Your task to perform on an android device: set the timer Image 0: 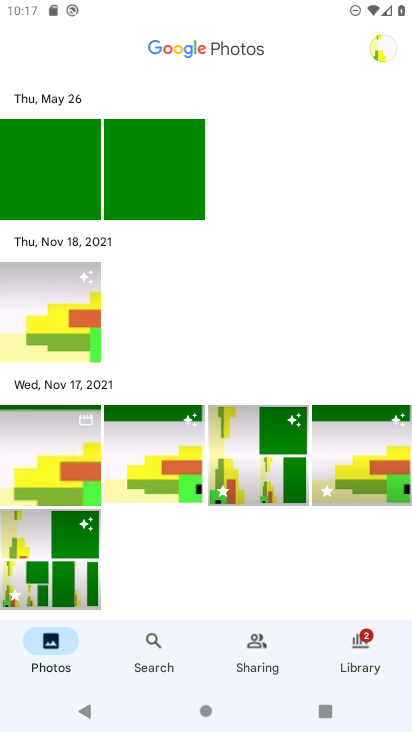
Step 0: press home button
Your task to perform on an android device: set the timer Image 1: 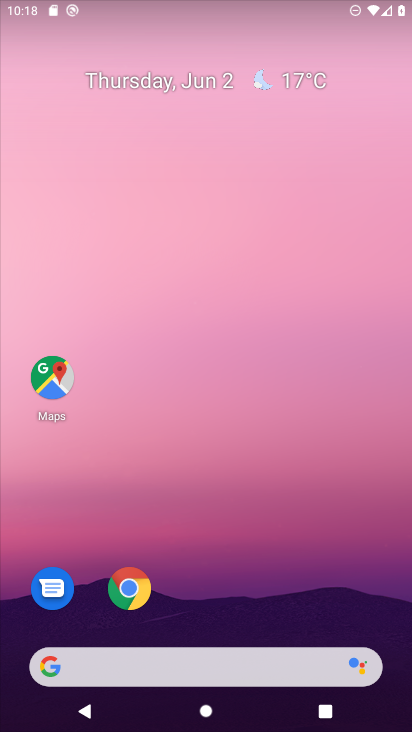
Step 1: drag from (214, 614) to (261, 80)
Your task to perform on an android device: set the timer Image 2: 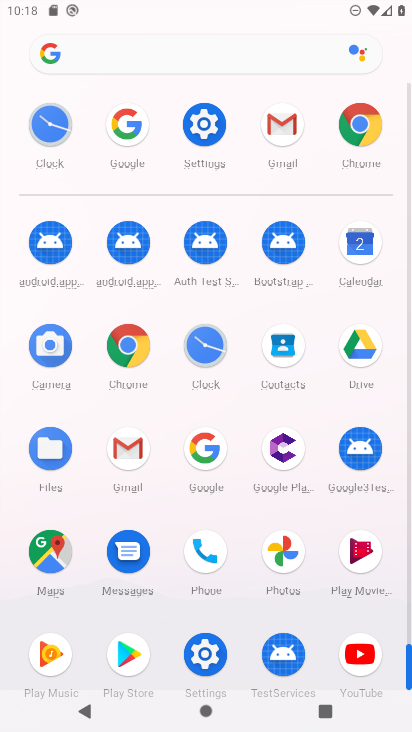
Step 2: click (216, 357)
Your task to perform on an android device: set the timer Image 3: 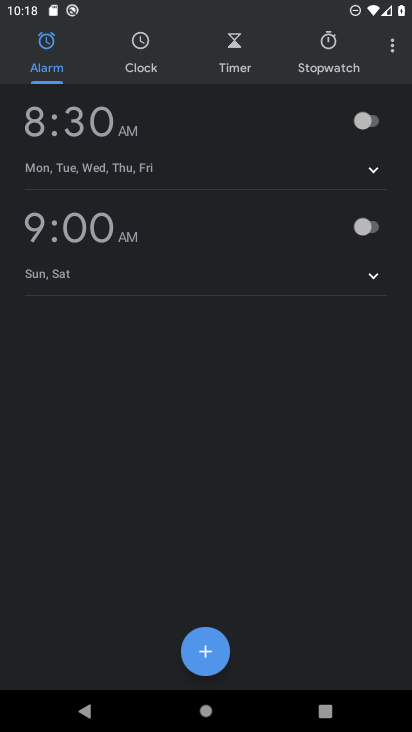
Step 3: click (254, 52)
Your task to perform on an android device: set the timer Image 4: 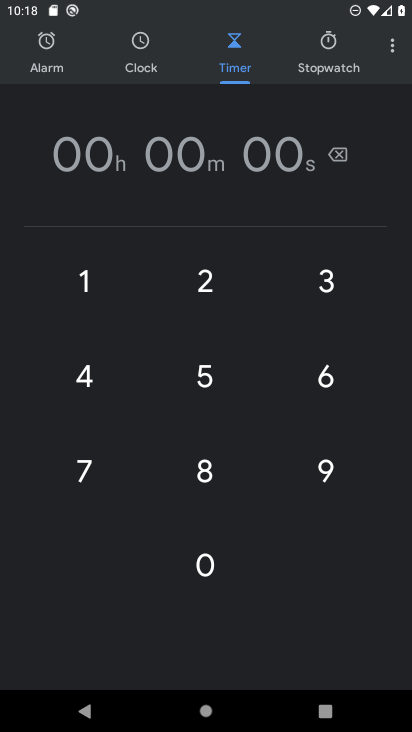
Step 4: click (220, 299)
Your task to perform on an android device: set the timer Image 5: 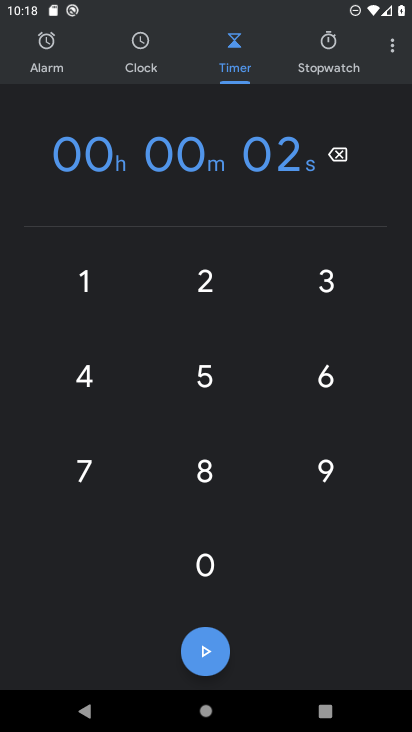
Step 5: click (218, 651)
Your task to perform on an android device: set the timer Image 6: 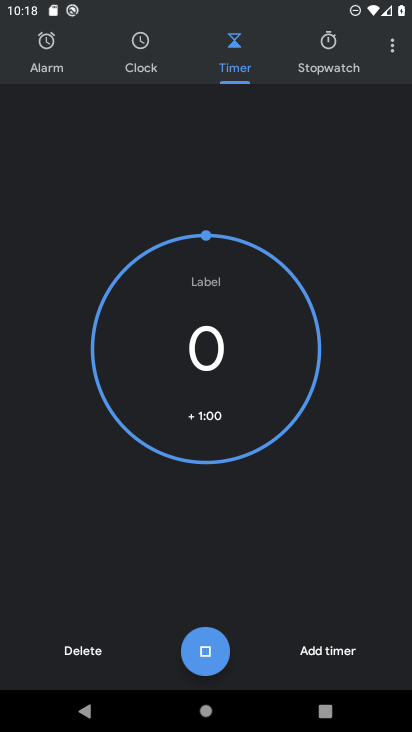
Step 6: task complete